Your task to perform on an android device: Go to display settings Image 0: 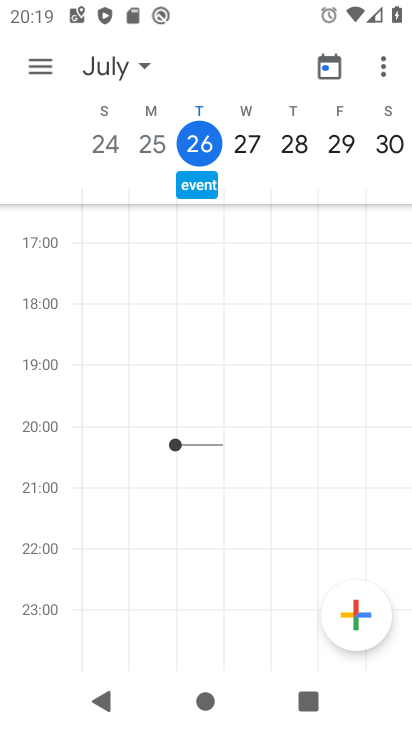
Step 0: press home button
Your task to perform on an android device: Go to display settings Image 1: 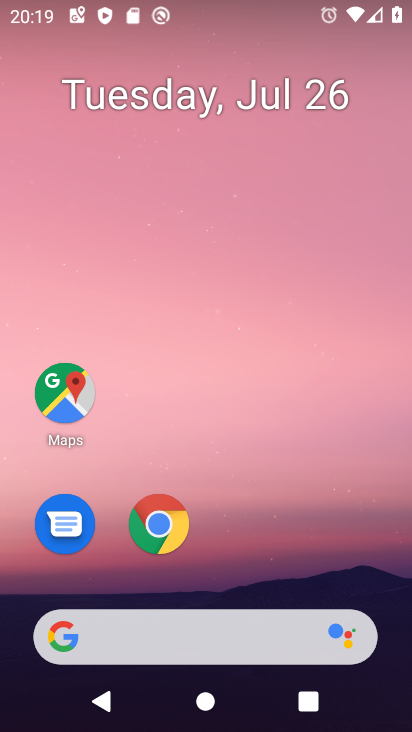
Step 1: drag from (294, 542) to (249, 0)
Your task to perform on an android device: Go to display settings Image 2: 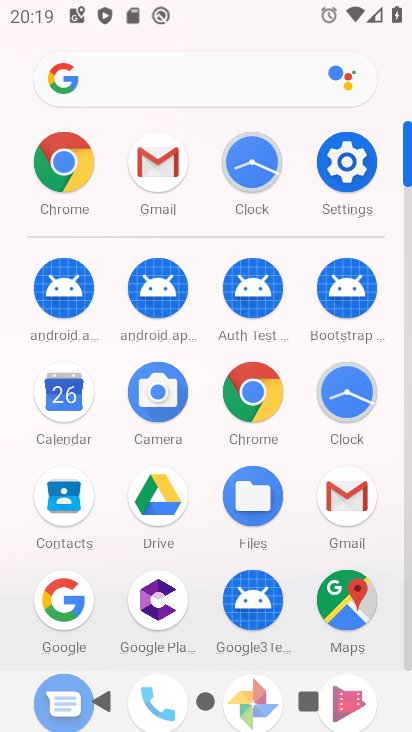
Step 2: click (342, 157)
Your task to perform on an android device: Go to display settings Image 3: 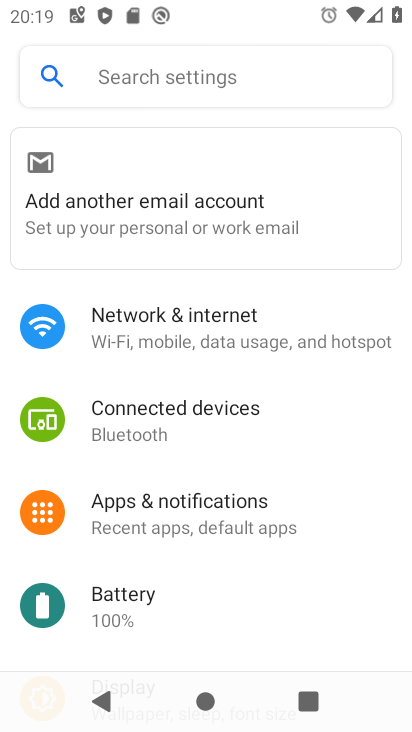
Step 3: drag from (224, 563) to (221, 14)
Your task to perform on an android device: Go to display settings Image 4: 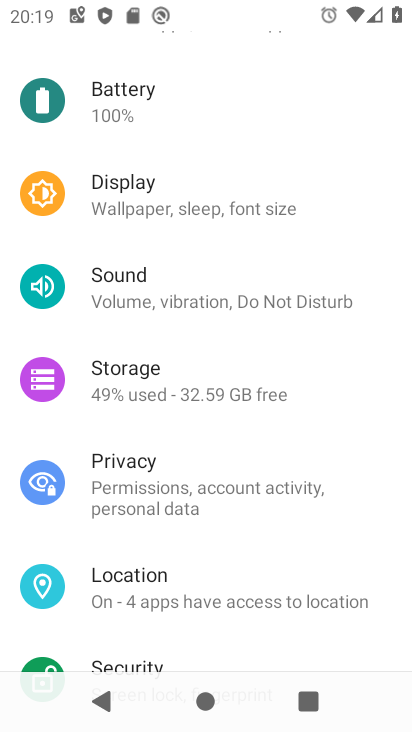
Step 4: click (183, 205)
Your task to perform on an android device: Go to display settings Image 5: 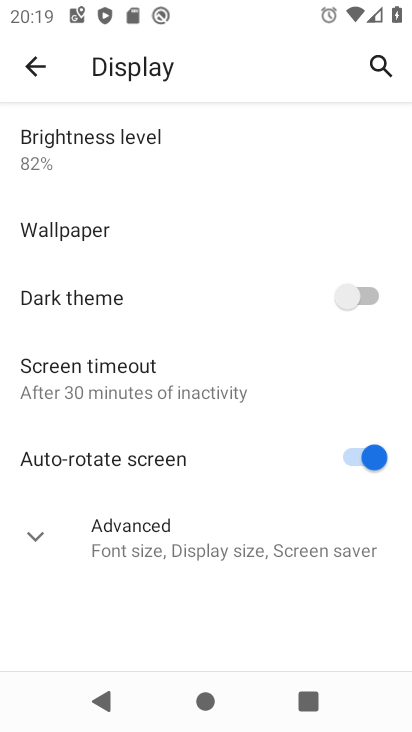
Step 5: task complete